Your task to perform on an android device: toggle translation in the chrome app Image 0: 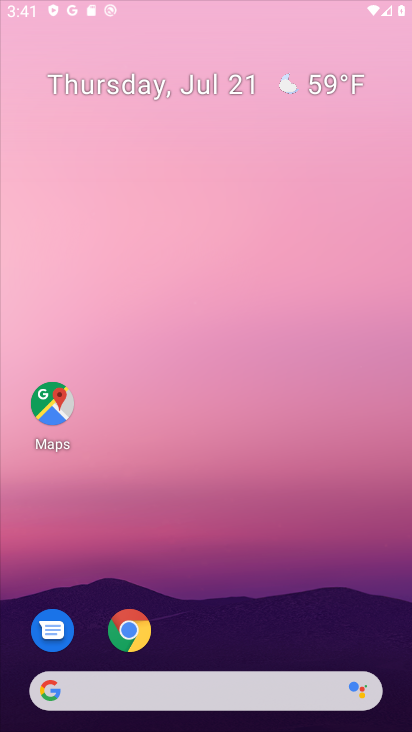
Step 0: drag from (259, 410) to (233, 68)
Your task to perform on an android device: toggle translation in the chrome app Image 1: 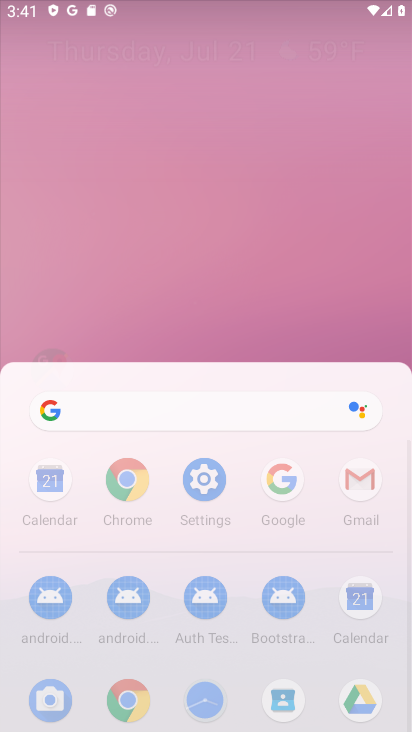
Step 1: drag from (253, 479) to (259, 8)
Your task to perform on an android device: toggle translation in the chrome app Image 2: 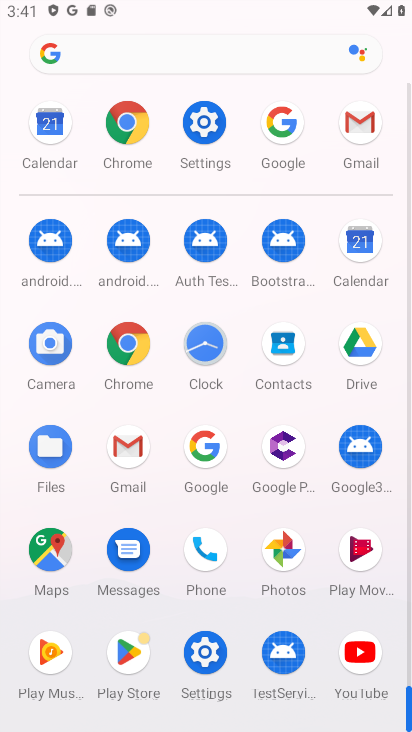
Step 2: click (133, 114)
Your task to perform on an android device: toggle translation in the chrome app Image 3: 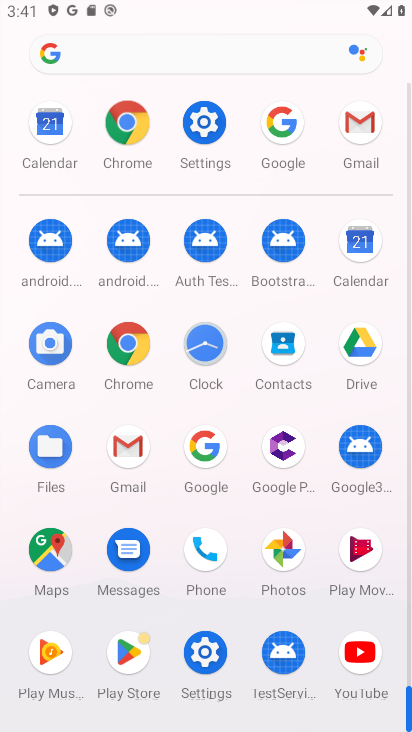
Step 3: click (136, 105)
Your task to perform on an android device: toggle translation in the chrome app Image 4: 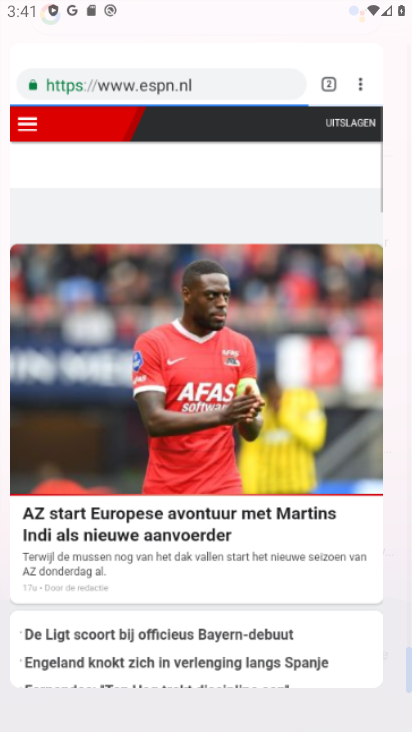
Step 4: click (137, 106)
Your task to perform on an android device: toggle translation in the chrome app Image 5: 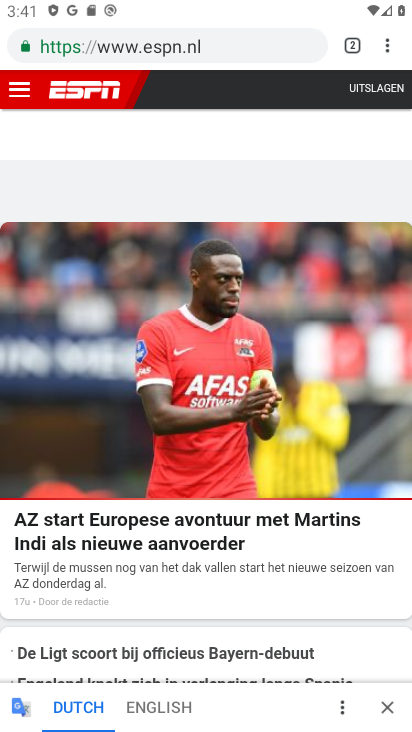
Step 5: drag from (375, 45) to (331, 402)
Your task to perform on an android device: toggle translation in the chrome app Image 6: 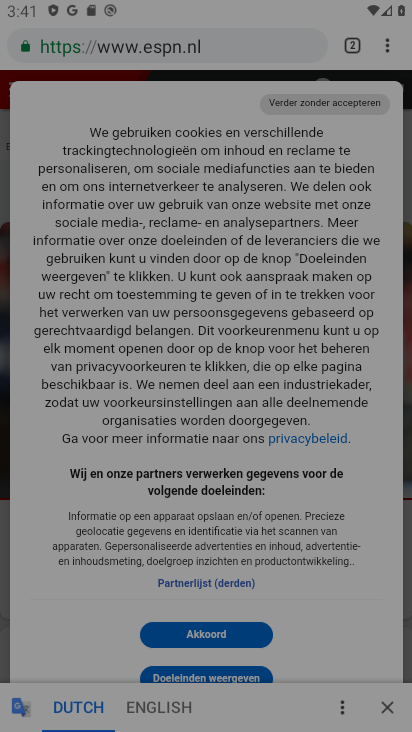
Step 6: drag from (379, 33) to (338, 366)
Your task to perform on an android device: toggle translation in the chrome app Image 7: 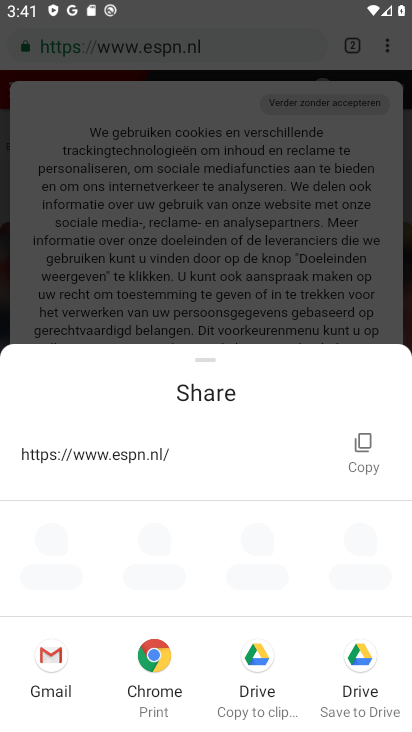
Step 7: click (270, 247)
Your task to perform on an android device: toggle translation in the chrome app Image 8: 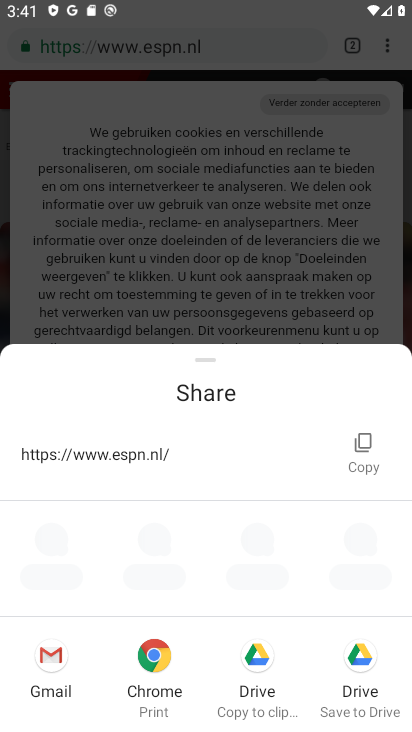
Step 8: click (276, 246)
Your task to perform on an android device: toggle translation in the chrome app Image 9: 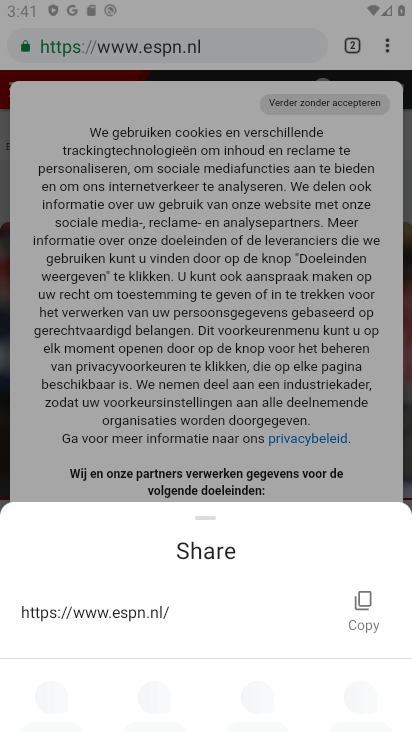
Step 9: click (276, 246)
Your task to perform on an android device: toggle translation in the chrome app Image 10: 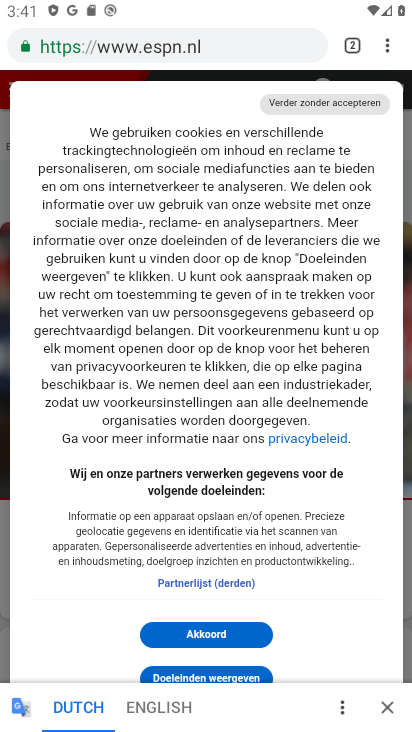
Step 10: drag from (383, 49) to (236, 561)
Your task to perform on an android device: toggle translation in the chrome app Image 11: 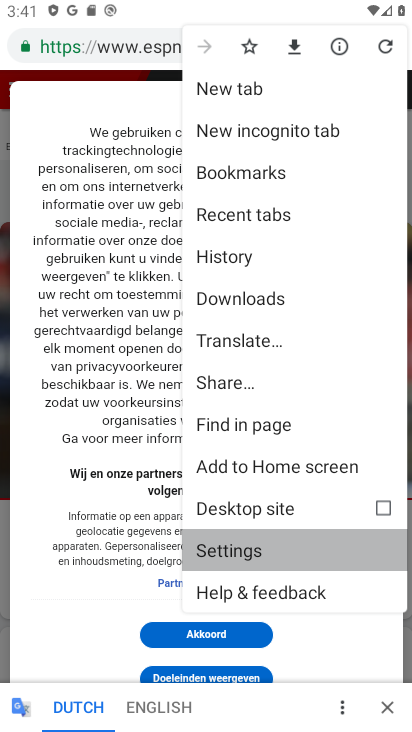
Step 11: click (235, 560)
Your task to perform on an android device: toggle translation in the chrome app Image 12: 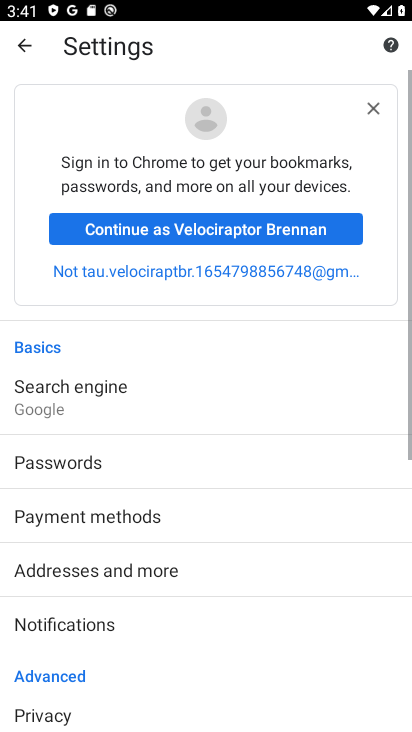
Step 12: drag from (169, 562) to (153, 96)
Your task to perform on an android device: toggle translation in the chrome app Image 13: 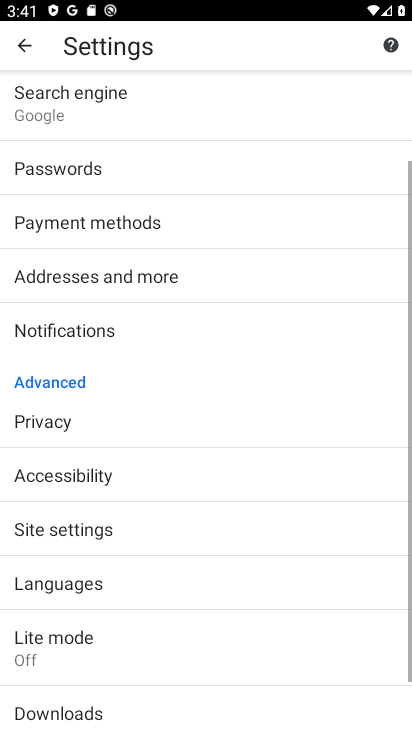
Step 13: drag from (98, 448) to (89, 188)
Your task to perform on an android device: toggle translation in the chrome app Image 14: 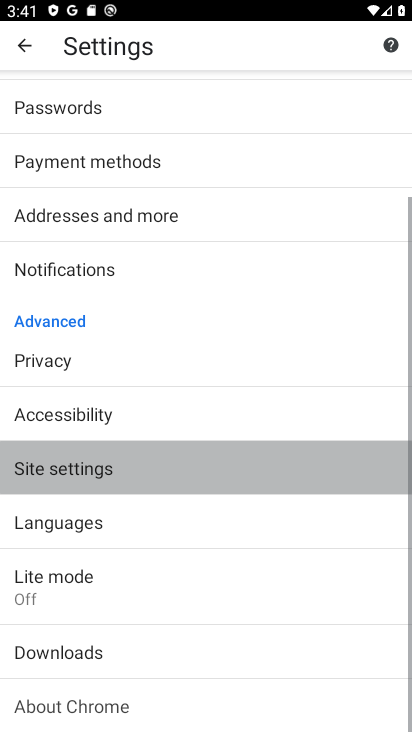
Step 14: drag from (65, 415) to (82, 182)
Your task to perform on an android device: toggle translation in the chrome app Image 15: 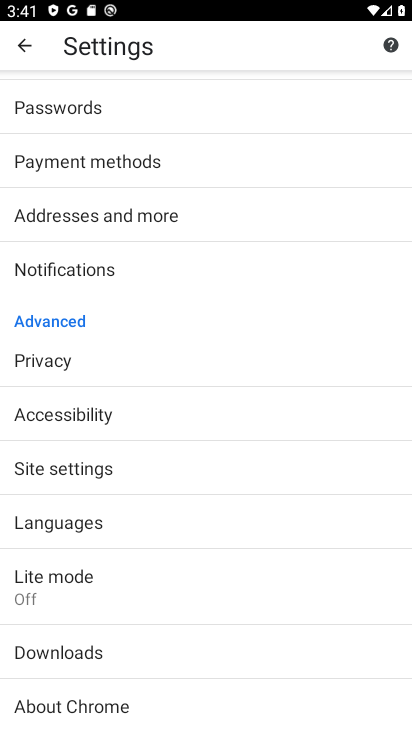
Step 15: click (64, 521)
Your task to perform on an android device: toggle translation in the chrome app Image 16: 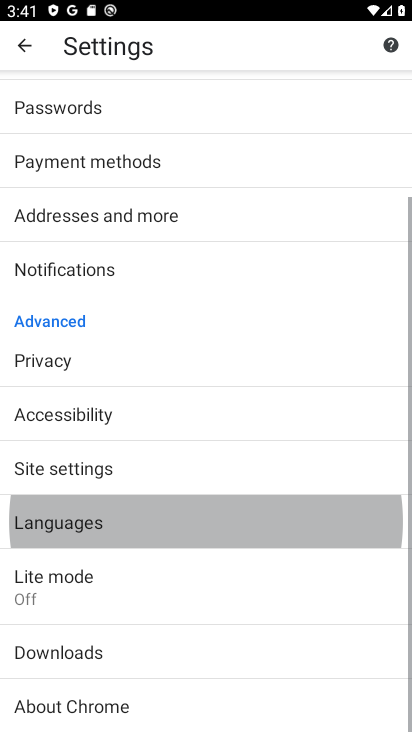
Step 16: click (66, 517)
Your task to perform on an android device: toggle translation in the chrome app Image 17: 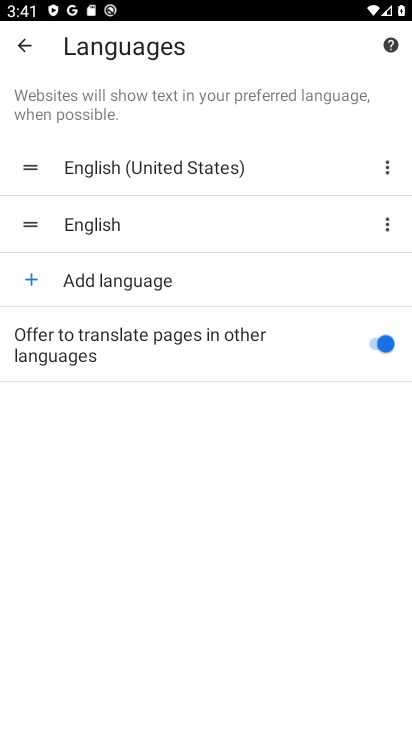
Step 17: click (385, 341)
Your task to perform on an android device: toggle translation in the chrome app Image 18: 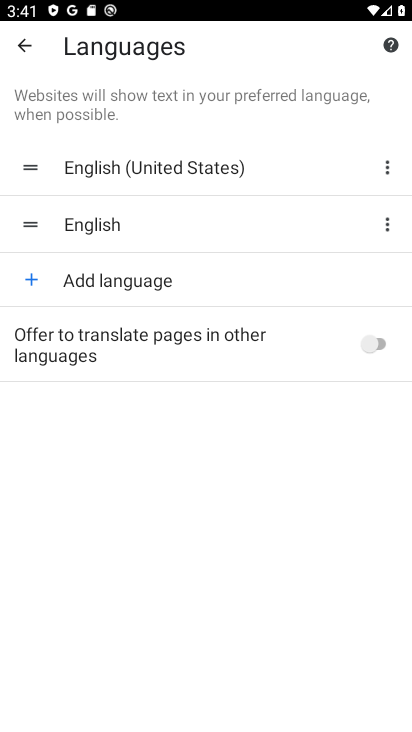
Step 18: task complete